Your task to perform on an android device: toggle location history Image 0: 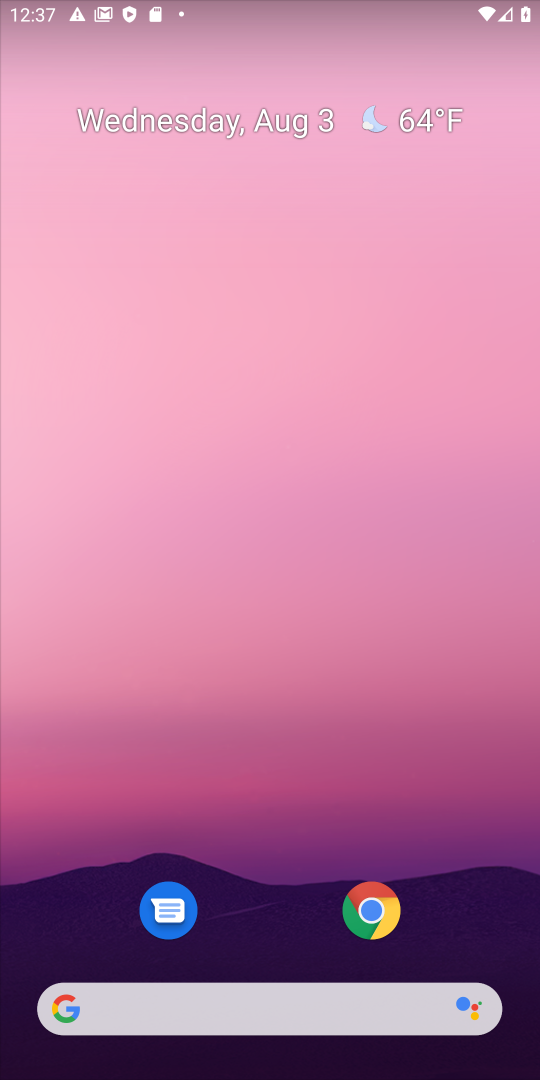
Step 0: drag from (276, 790) to (374, 7)
Your task to perform on an android device: toggle location history Image 1: 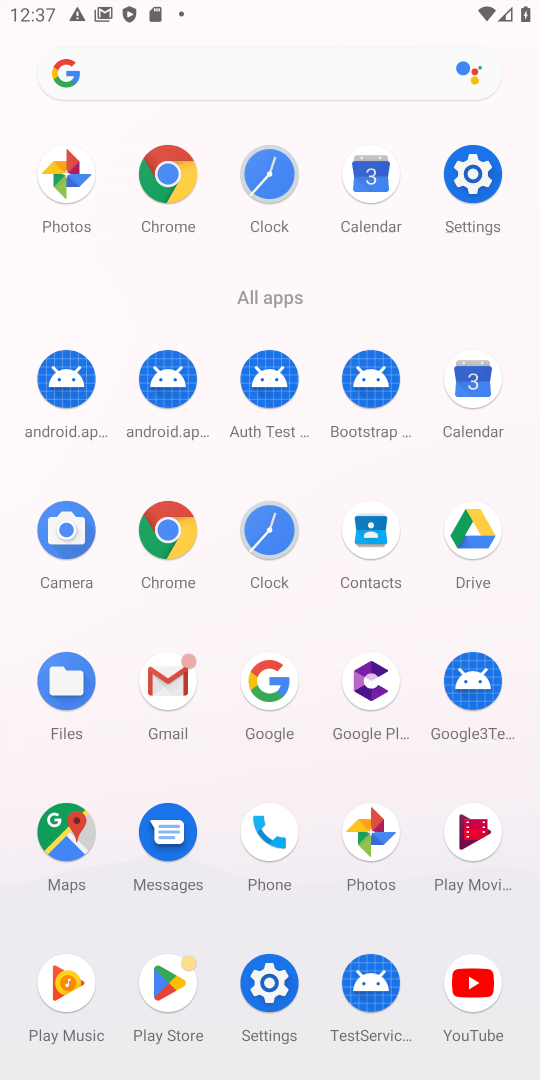
Step 1: click (486, 179)
Your task to perform on an android device: toggle location history Image 2: 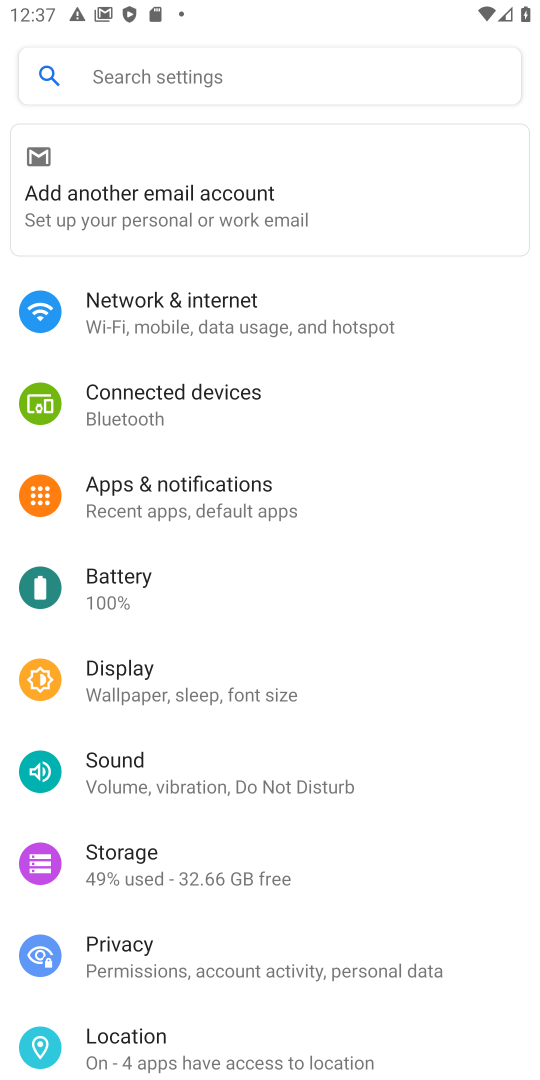
Step 2: drag from (176, 862) to (325, 134)
Your task to perform on an android device: toggle location history Image 3: 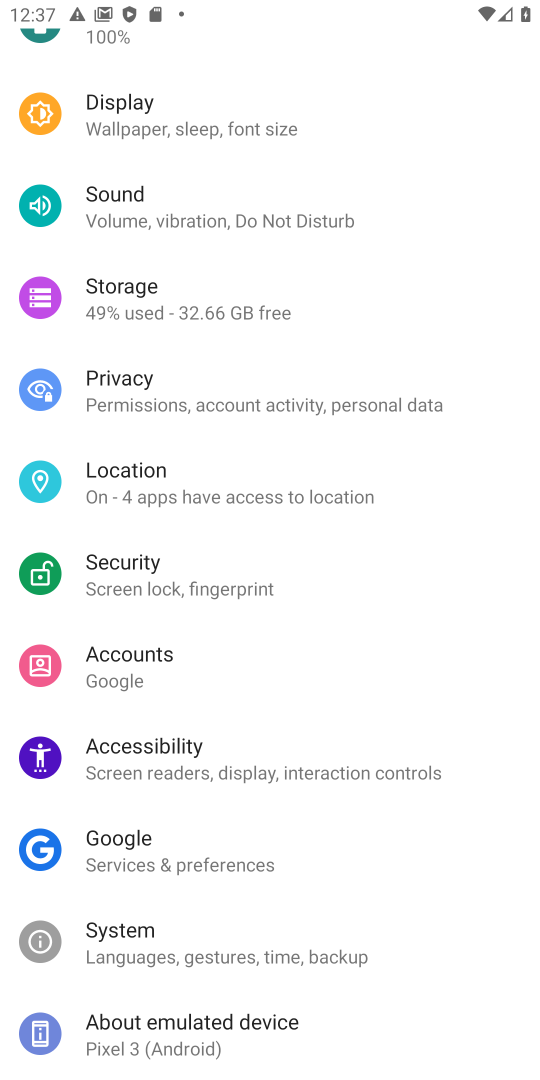
Step 3: click (216, 478)
Your task to perform on an android device: toggle location history Image 4: 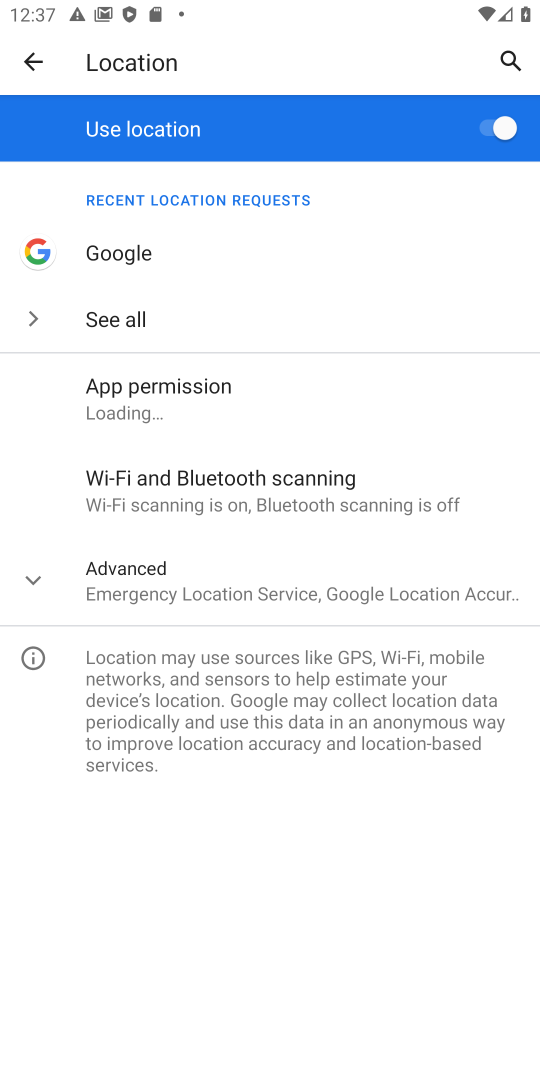
Step 4: click (189, 593)
Your task to perform on an android device: toggle location history Image 5: 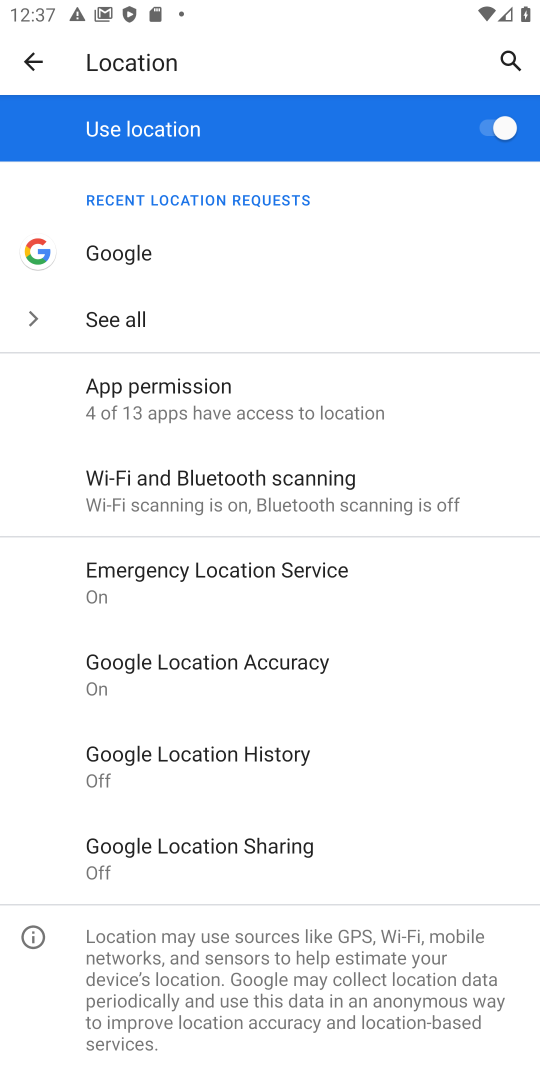
Step 5: click (277, 751)
Your task to perform on an android device: toggle location history Image 6: 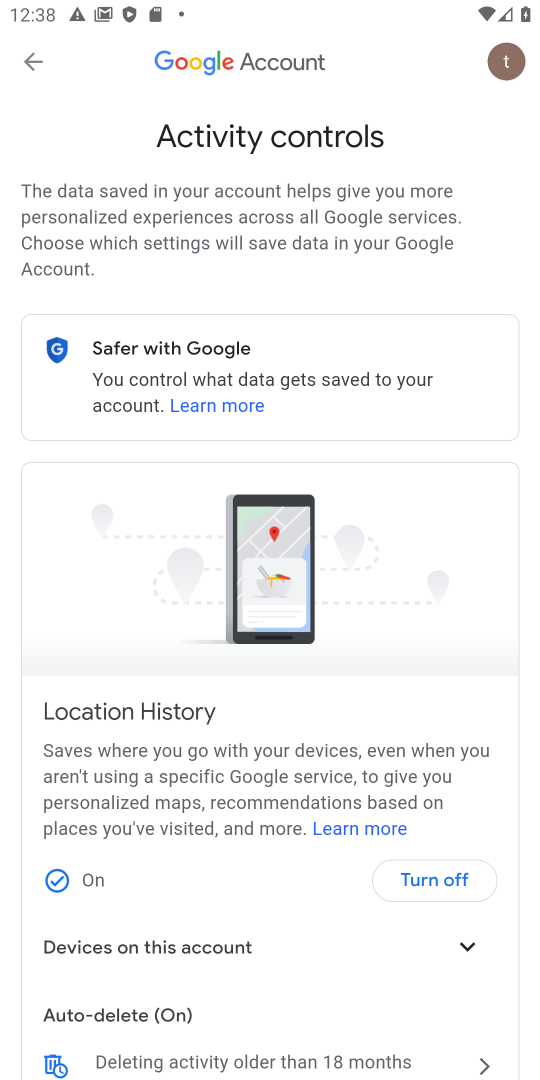
Step 6: task complete